Your task to perform on an android device: turn on airplane mode Image 0: 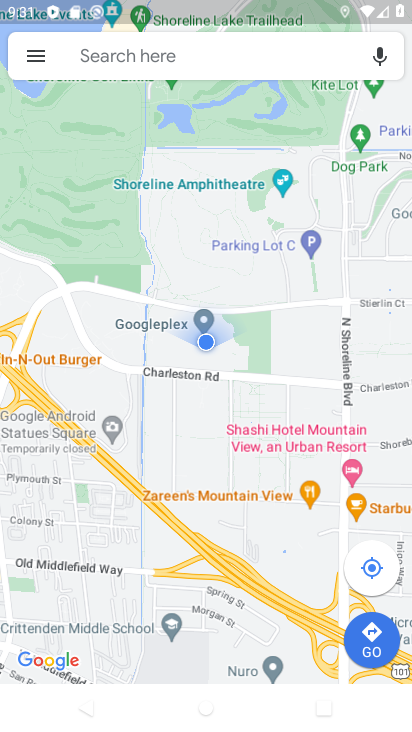
Step 0: press home button
Your task to perform on an android device: turn on airplane mode Image 1: 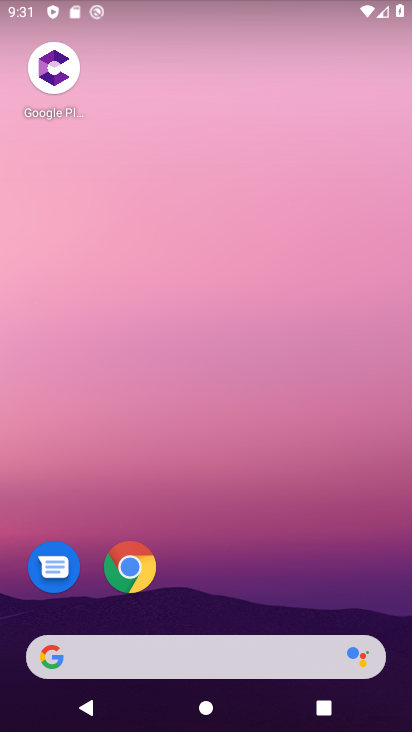
Step 1: drag from (147, 633) to (140, 166)
Your task to perform on an android device: turn on airplane mode Image 2: 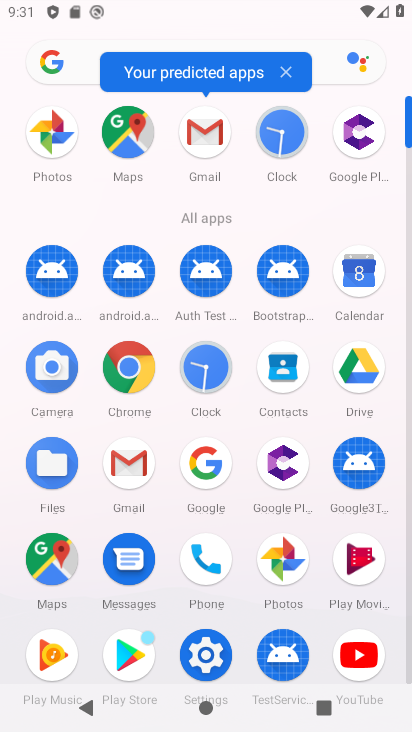
Step 2: click (198, 660)
Your task to perform on an android device: turn on airplane mode Image 3: 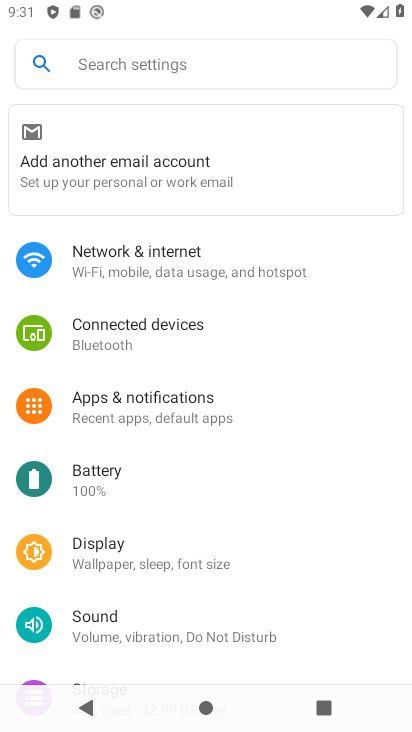
Step 3: click (159, 255)
Your task to perform on an android device: turn on airplane mode Image 4: 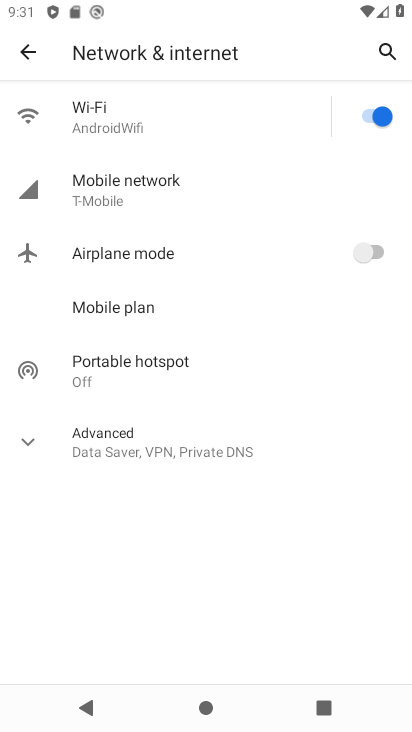
Step 4: click (368, 242)
Your task to perform on an android device: turn on airplane mode Image 5: 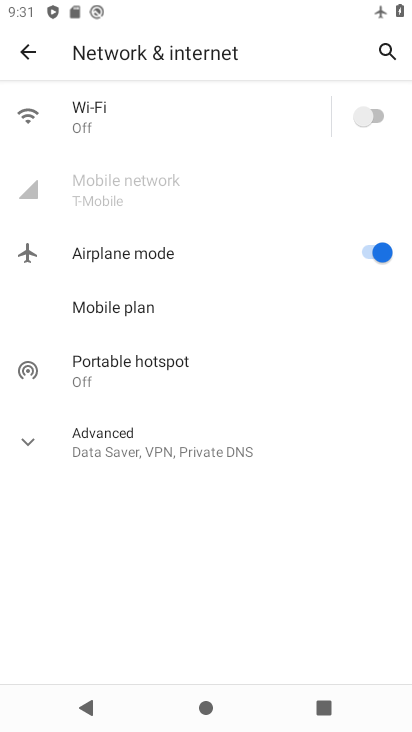
Step 5: task complete